Your task to perform on an android device: Open ESPN.com Image 0: 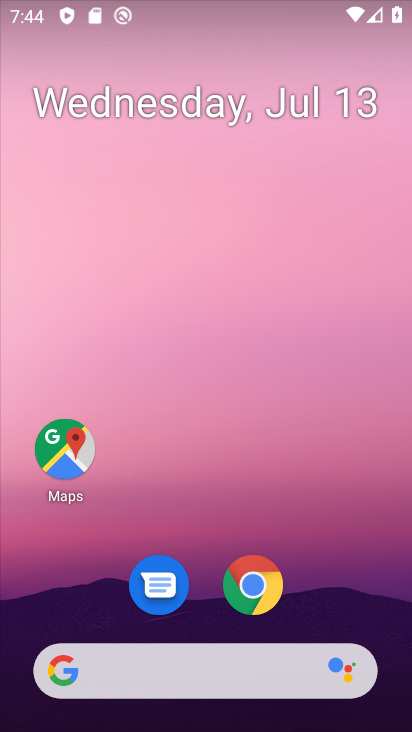
Step 0: click (250, 673)
Your task to perform on an android device: Open ESPN.com Image 1: 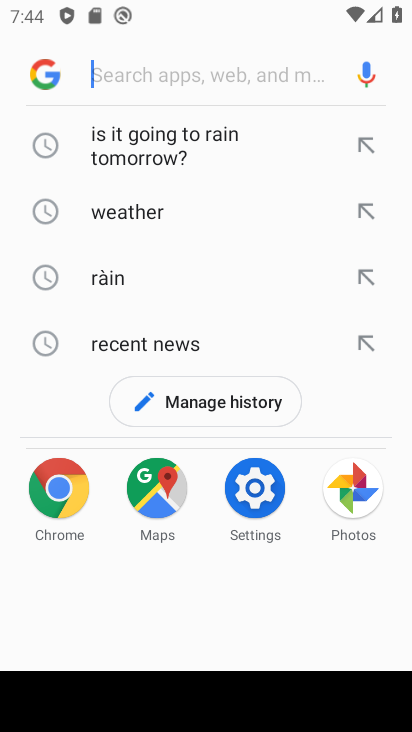
Step 1: type "espn.com"
Your task to perform on an android device: Open ESPN.com Image 2: 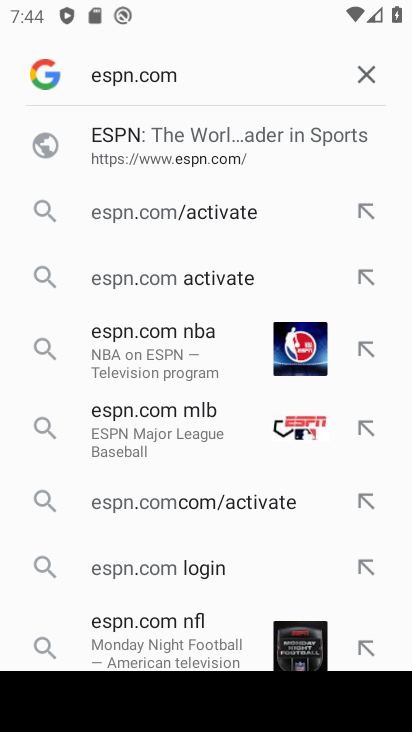
Step 2: click (151, 148)
Your task to perform on an android device: Open ESPN.com Image 3: 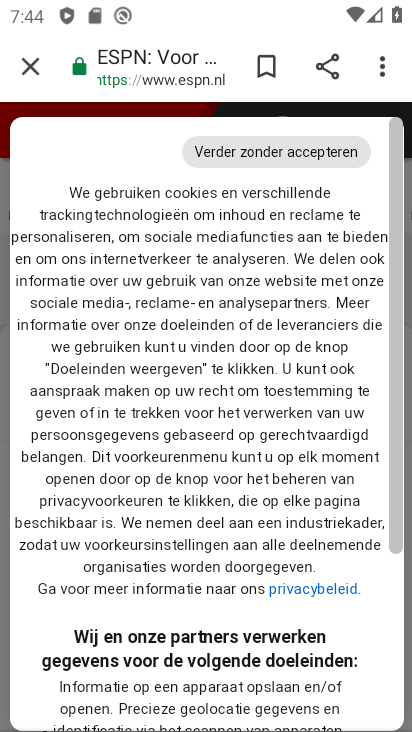
Step 3: drag from (262, 507) to (269, 139)
Your task to perform on an android device: Open ESPN.com Image 4: 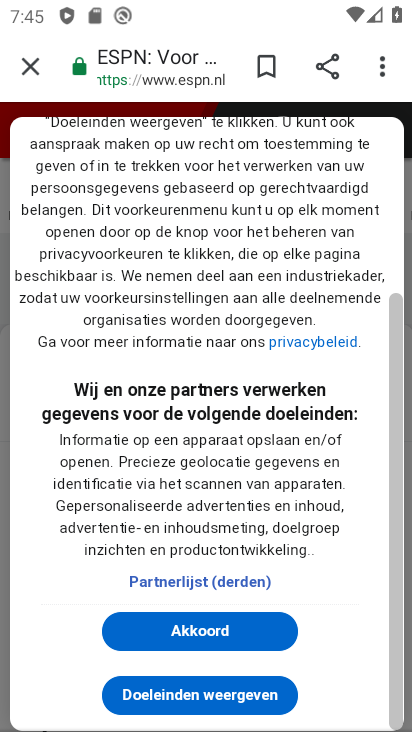
Step 4: drag from (231, 225) to (295, 598)
Your task to perform on an android device: Open ESPN.com Image 5: 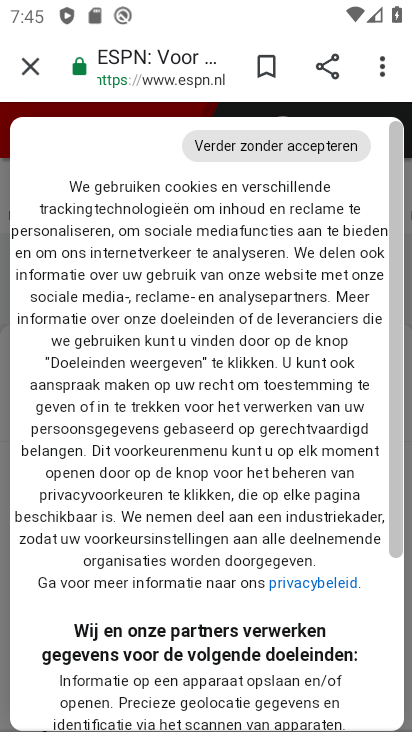
Step 5: click (325, 142)
Your task to perform on an android device: Open ESPN.com Image 6: 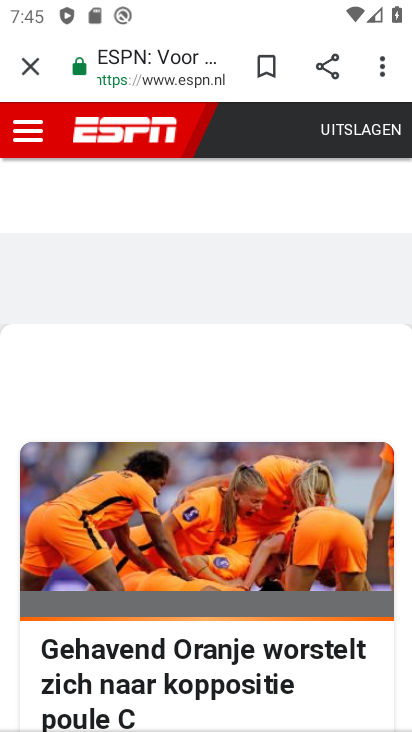
Step 6: task complete